Your task to perform on an android device: Open sound settings Image 0: 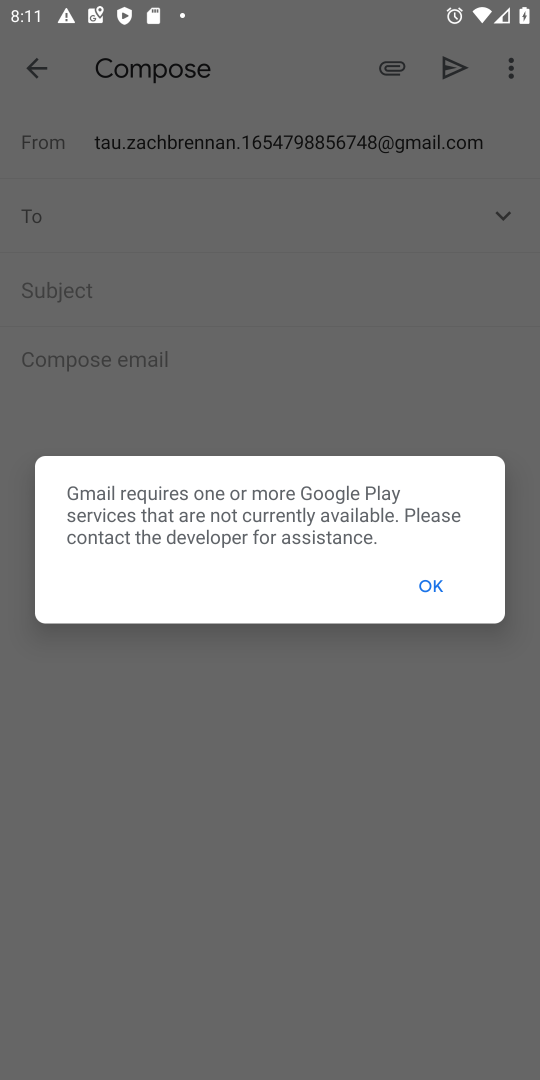
Step 0: press home button
Your task to perform on an android device: Open sound settings Image 1: 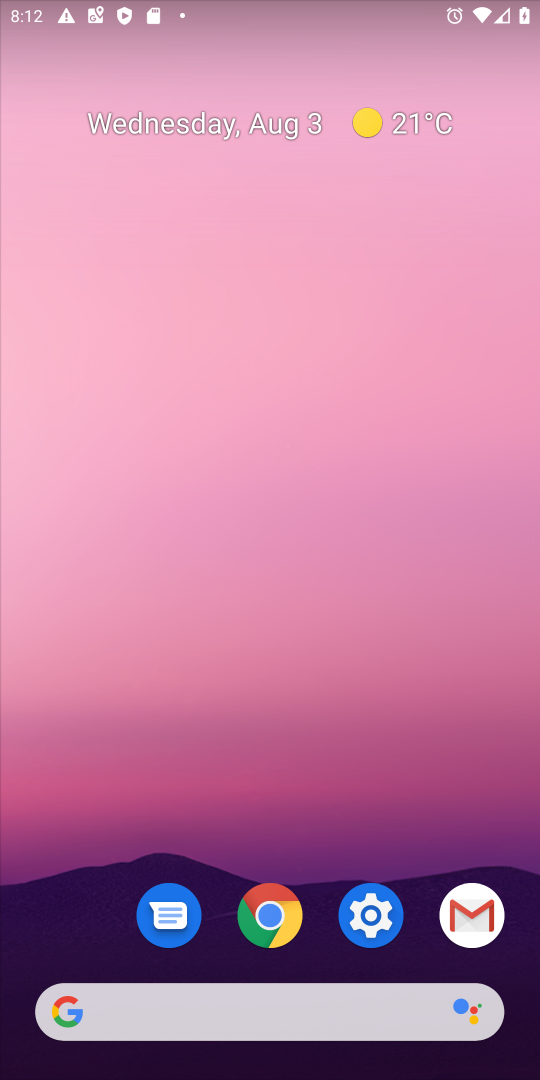
Step 1: drag from (321, 1050) to (270, 333)
Your task to perform on an android device: Open sound settings Image 2: 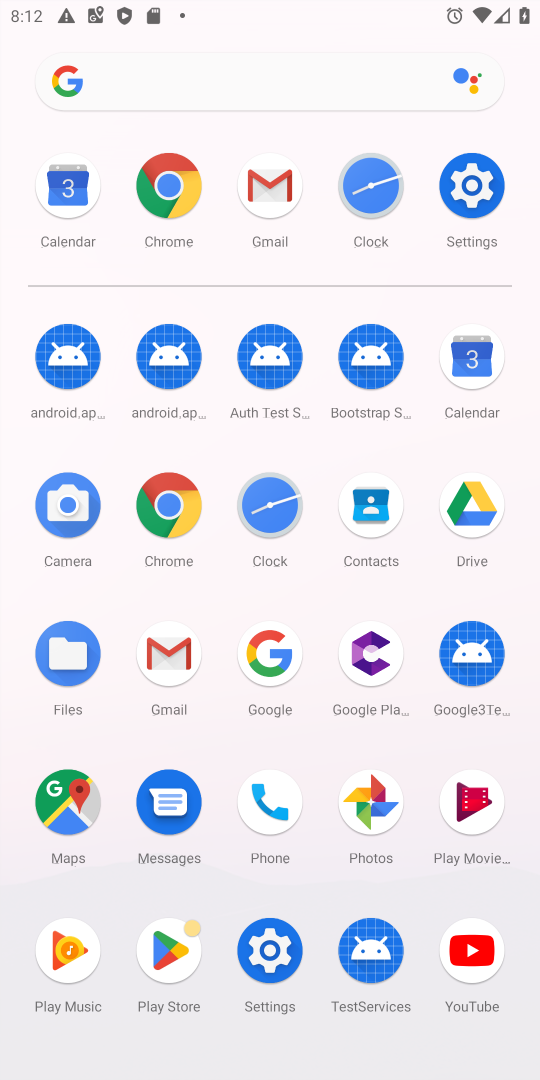
Step 2: click (476, 179)
Your task to perform on an android device: Open sound settings Image 3: 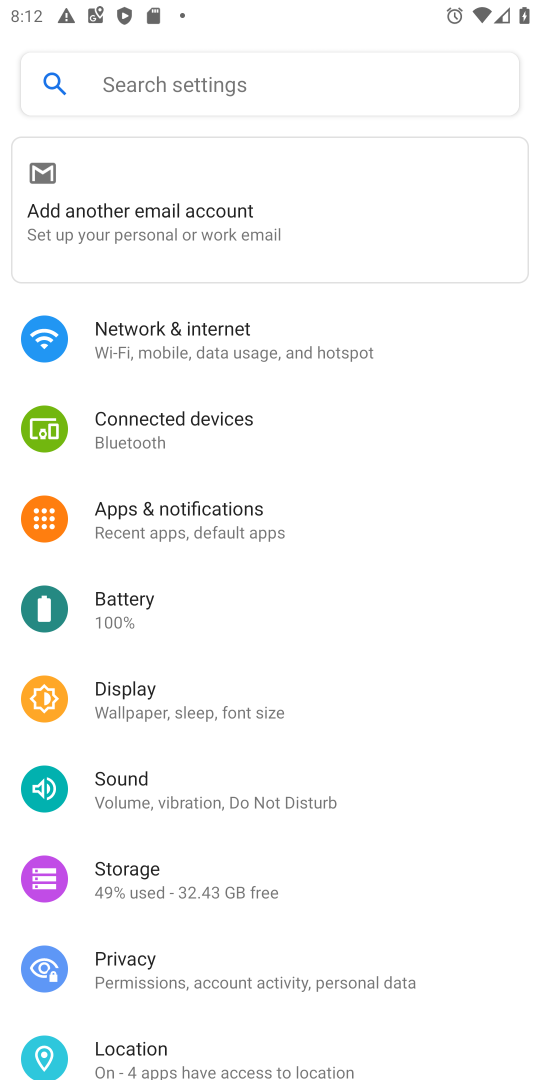
Step 3: click (184, 791)
Your task to perform on an android device: Open sound settings Image 4: 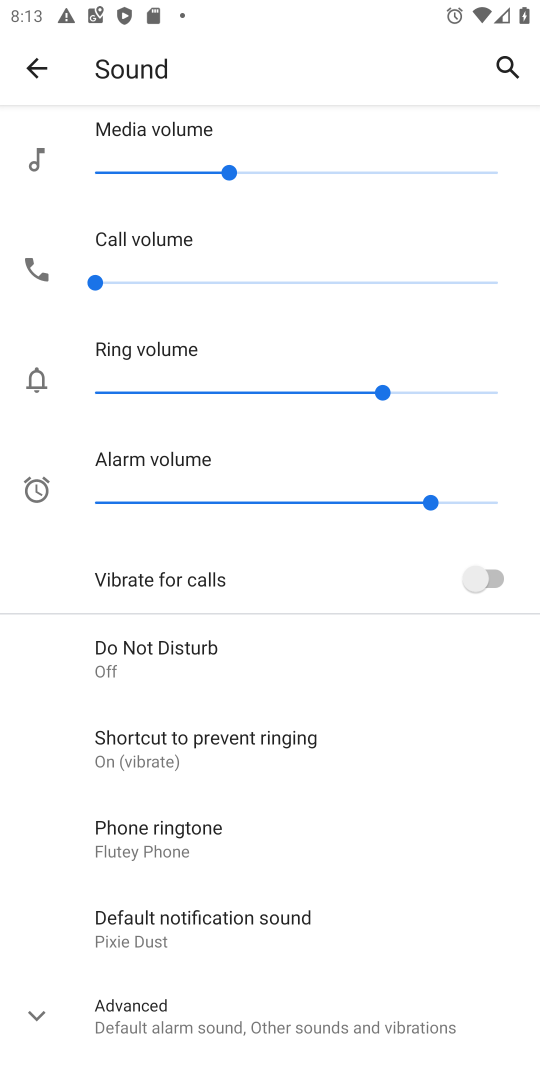
Step 4: task complete